Your task to perform on an android device: add a contact in the contacts app Image 0: 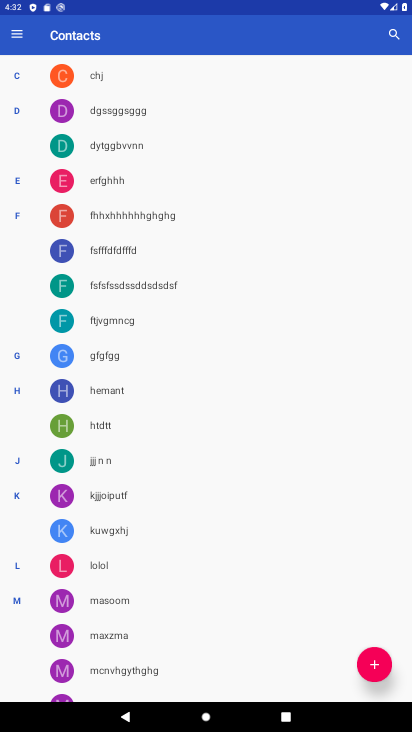
Step 0: press home button
Your task to perform on an android device: add a contact in the contacts app Image 1: 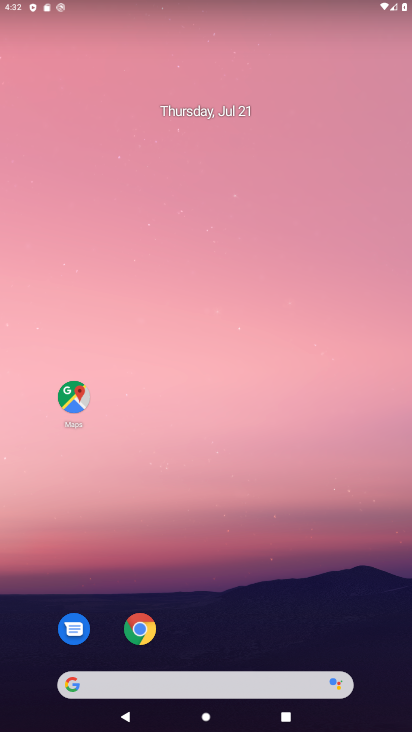
Step 1: drag from (218, 641) to (247, 106)
Your task to perform on an android device: add a contact in the contacts app Image 2: 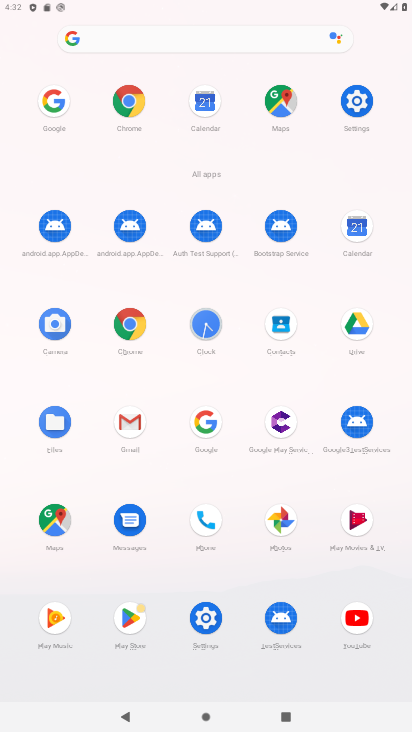
Step 2: click (281, 319)
Your task to perform on an android device: add a contact in the contacts app Image 3: 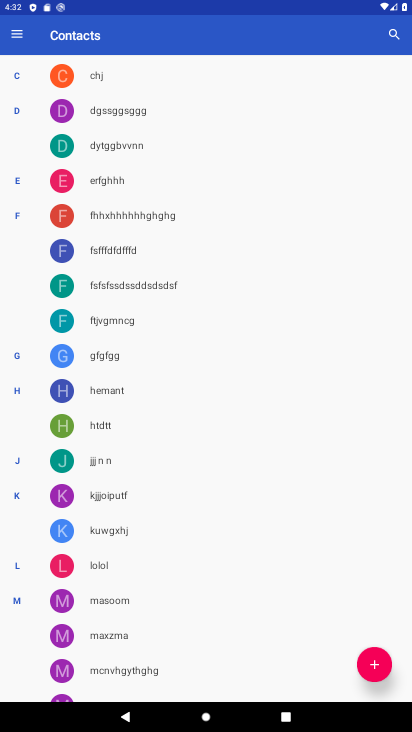
Step 3: click (370, 660)
Your task to perform on an android device: add a contact in the contacts app Image 4: 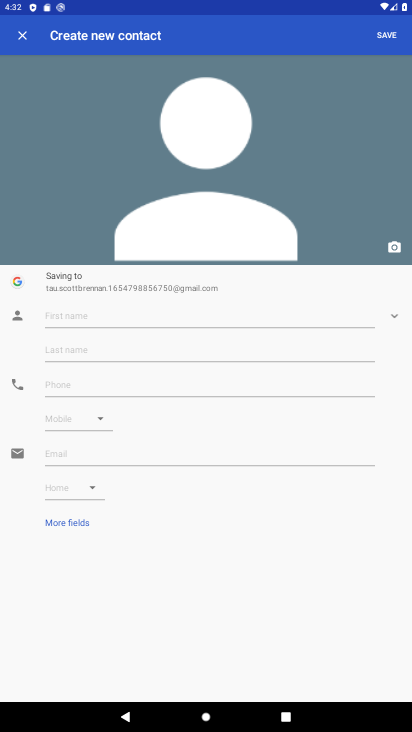
Step 4: click (81, 310)
Your task to perform on an android device: add a contact in the contacts app Image 5: 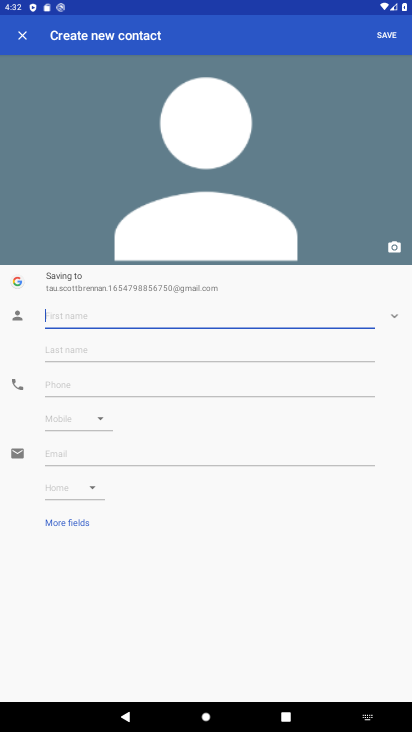
Step 5: type "ytdtrrx"
Your task to perform on an android device: add a contact in the contacts app Image 6: 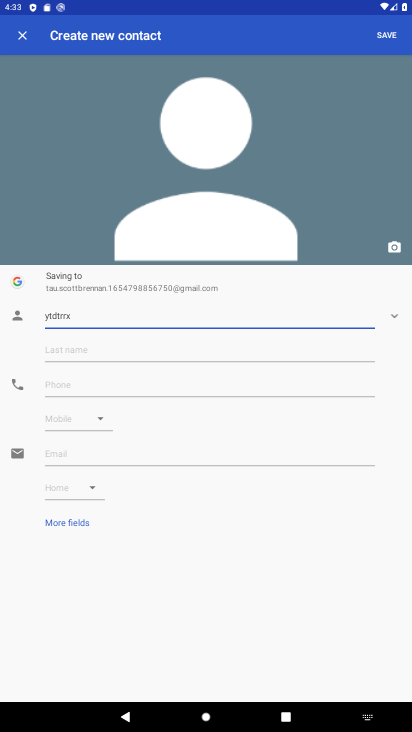
Step 6: click (383, 31)
Your task to perform on an android device: add a contact in the contacts app Image 7: 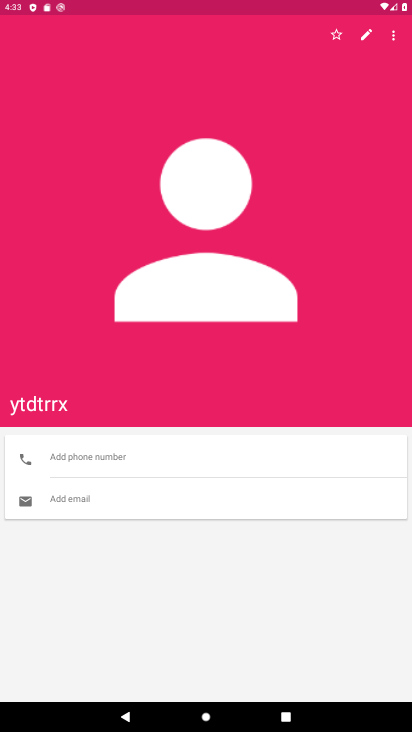
Step 7: task complete